Your task to perform on an android device: Open privacy settings Image 0: 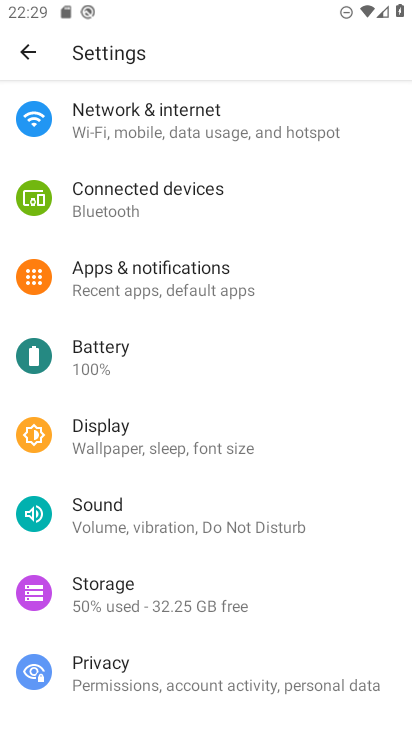
Step 0: drag from (170, 583) to (224, 247)
Your task to perform on an android device: Open privacy settings Image 1: 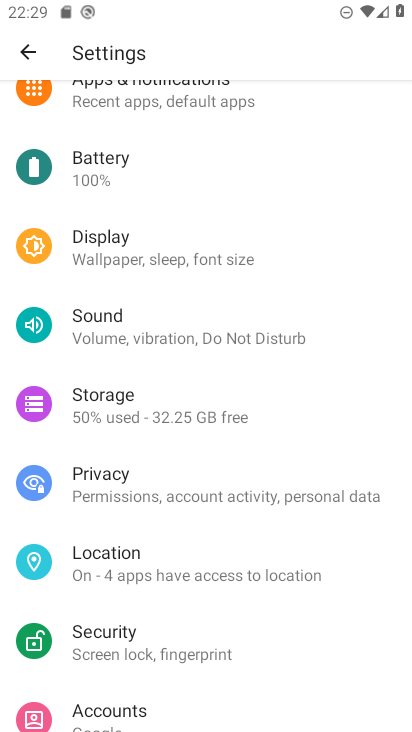
Step 1: click (144, 485)
Your task to perform on an android device: Open privacy settings Image 2: 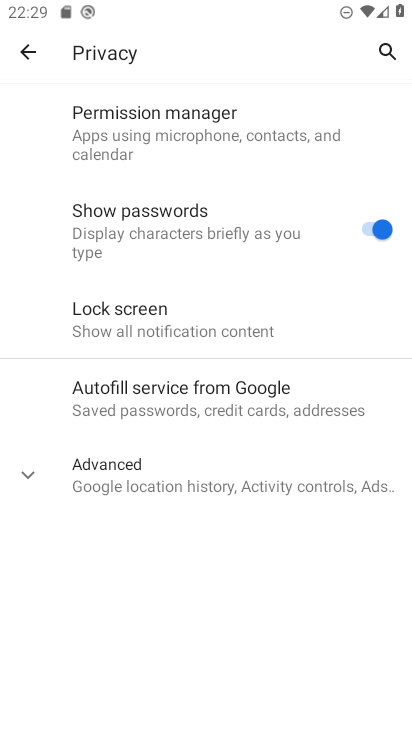
Step 2: drag from (277, 420) to (293, 254)
Your task to perform on an android device: Open privacy settings Image 3: 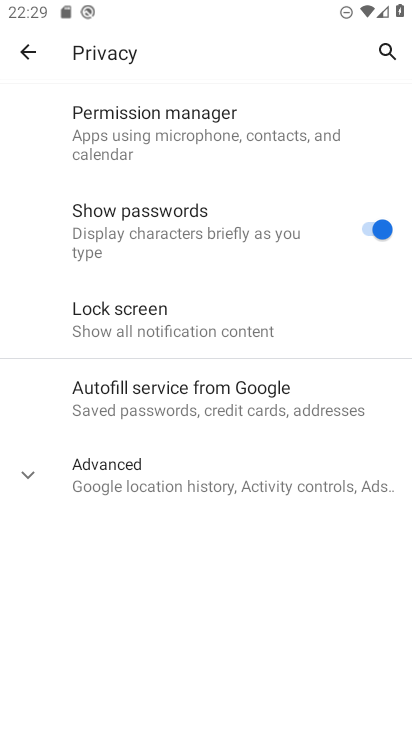
Step 3: click (192, 130)
Your task to perform on an android device: Open privacy settings Image 4: 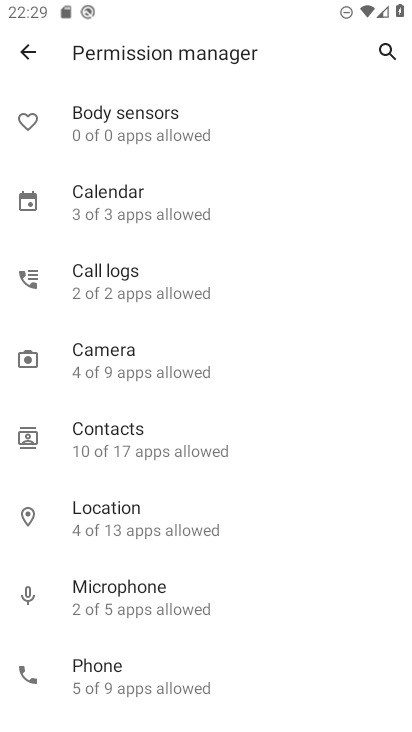
Step 4: drag from (201, 612) to (251, 219)
Your task to perform on an android device: Open privacy settings Image 5: 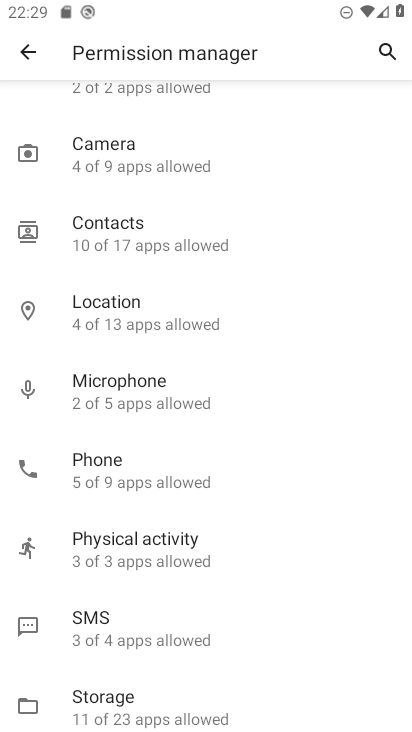
Step 5: click (25, 49)
Your task to perform on an android device: Open privacy settings Image 6: 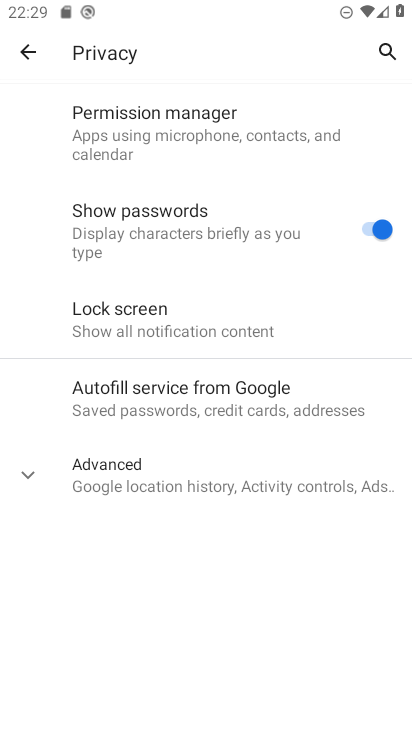
Step 6: task complete